Your task to perform on an android device: turn off notifications settings in the gmail app Image 0: 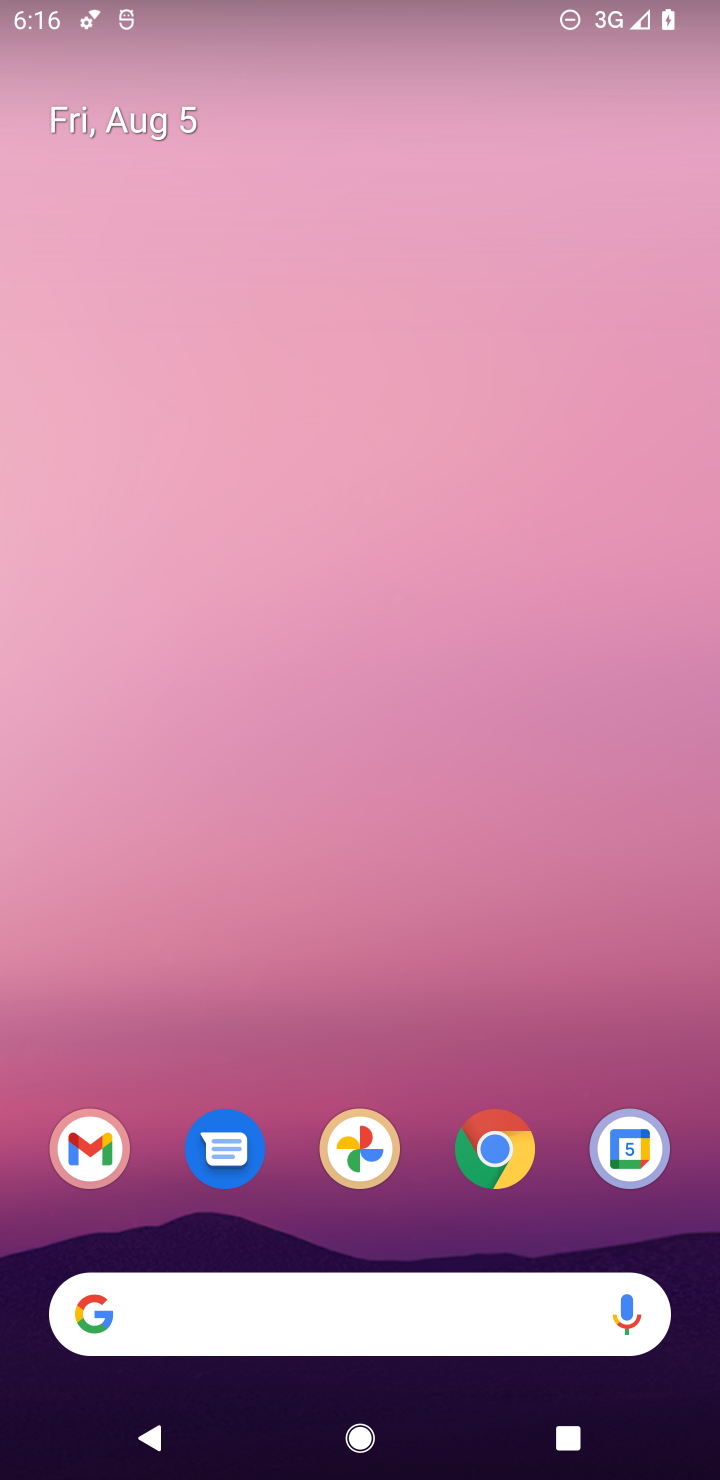
Step 0: click (76, 1154)
Your task to perform on an android device: turn off notifications settings in the gmail app Image 1: 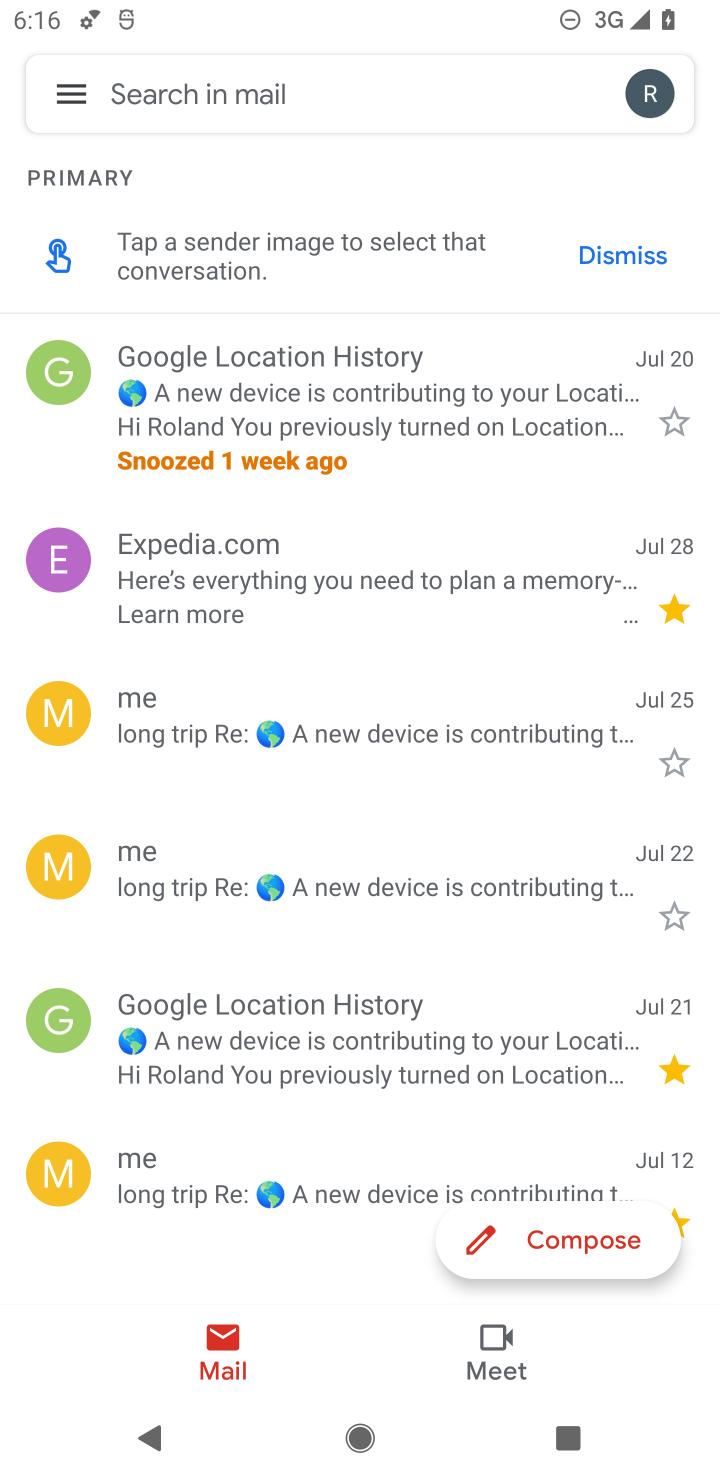
Step 1: click (68, 92)
Your task to perform on an android device: turn off notifications settings in the gmail app Image 2: 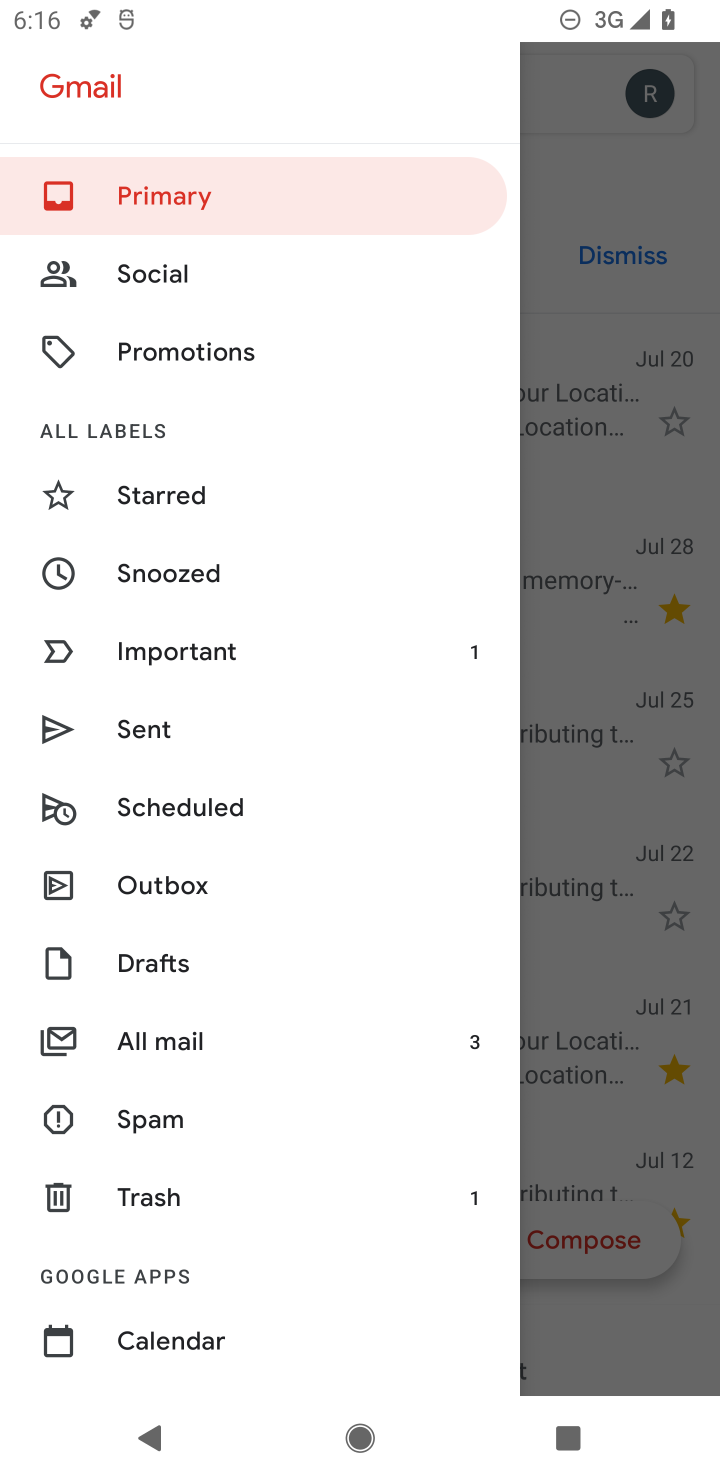
Step 2: drag from (292, 1081) to (289, 702)
Your task to perform on an android device: turn off notifications settings in the gmail app Image 3: 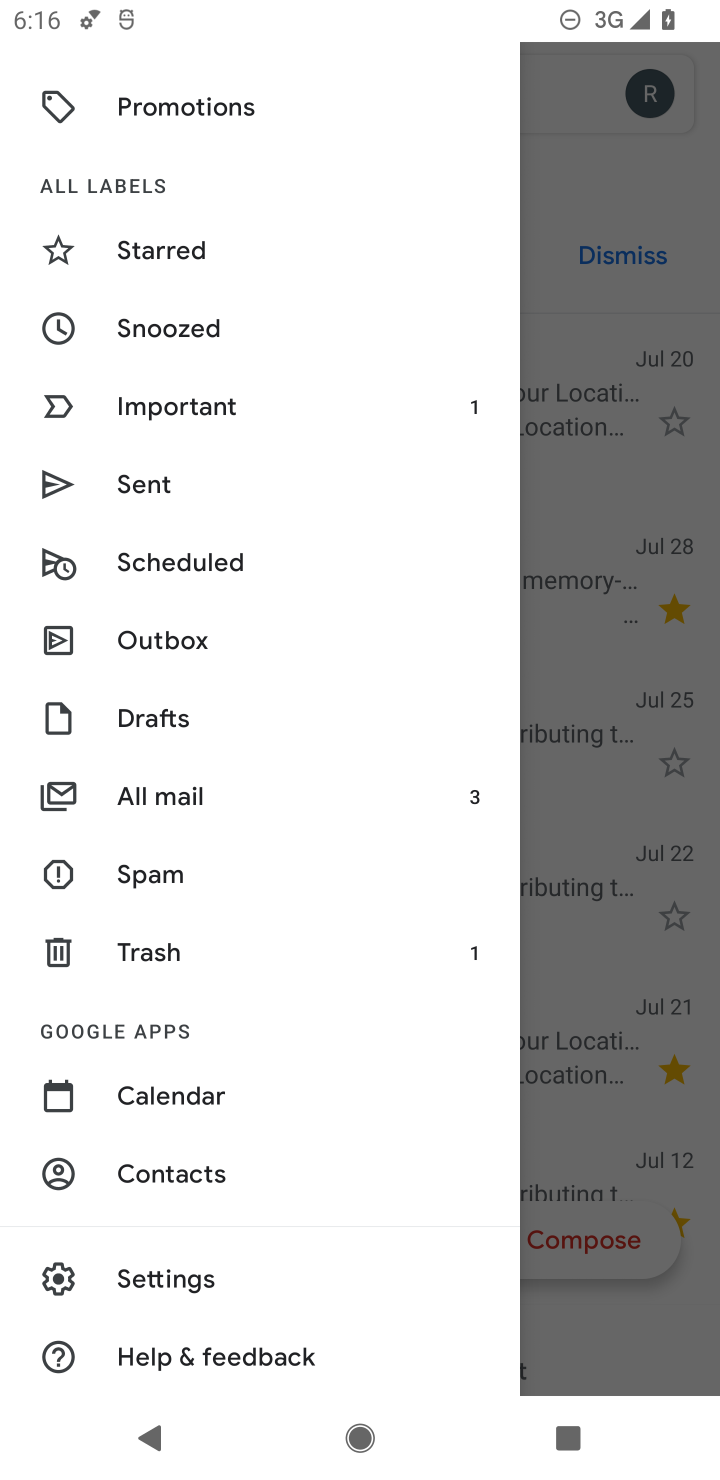
Step 3: click (154, 1275)
Your task to perform on an android device: turn off notifications settings in the gmail app Image 4: 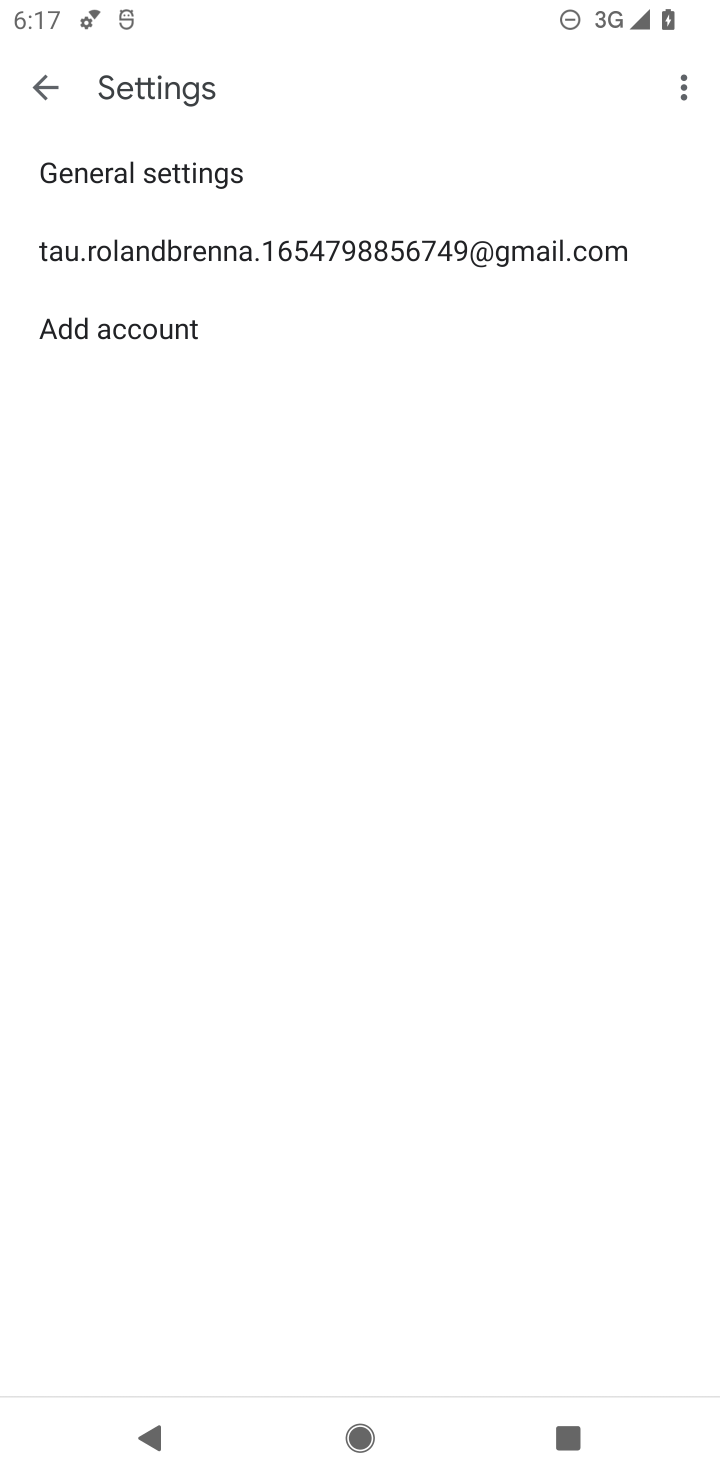
Step 4: click (144, 167)
Your task to perform on an android device: turn off notifications settings in the gmail app Image 5: 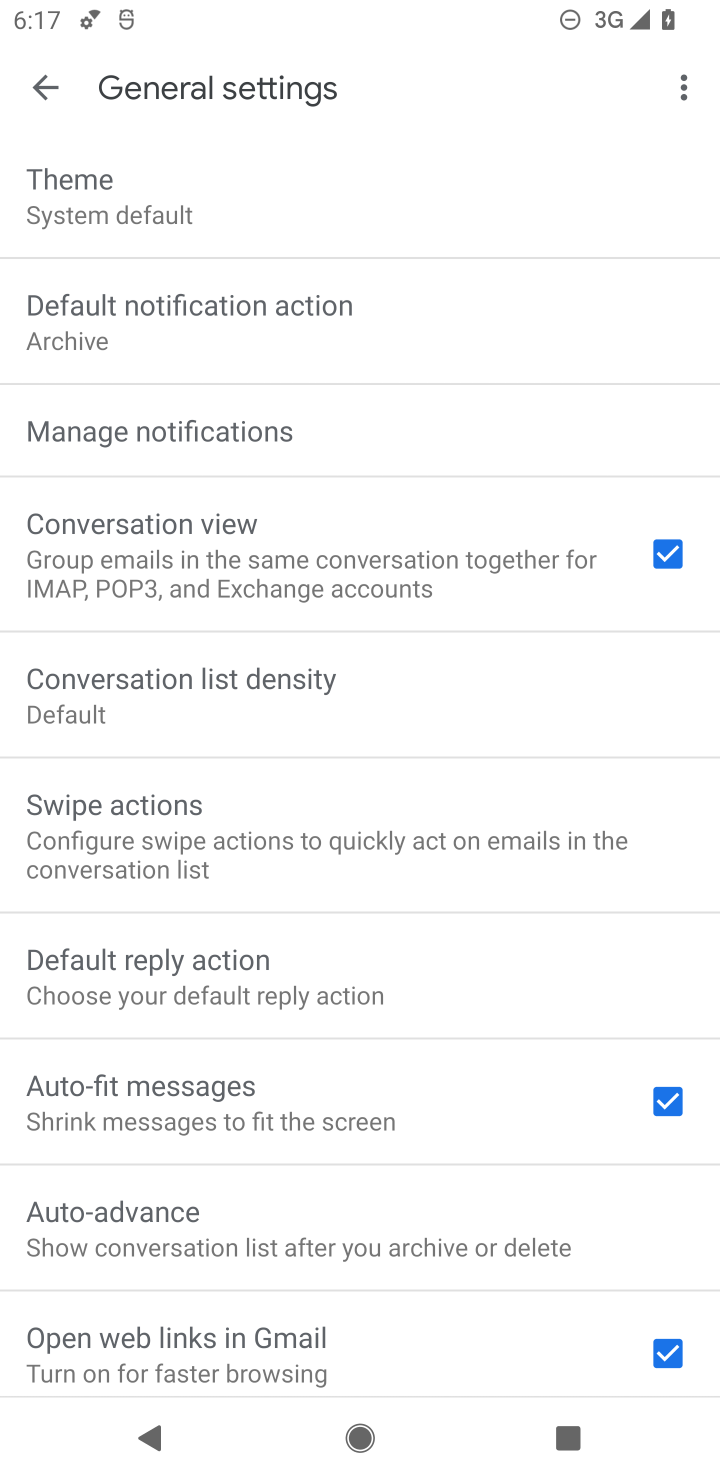
Step 5: click (112, 419)
Your task to perform on an android device: turn off notifications settings in the gmail app Image 6: 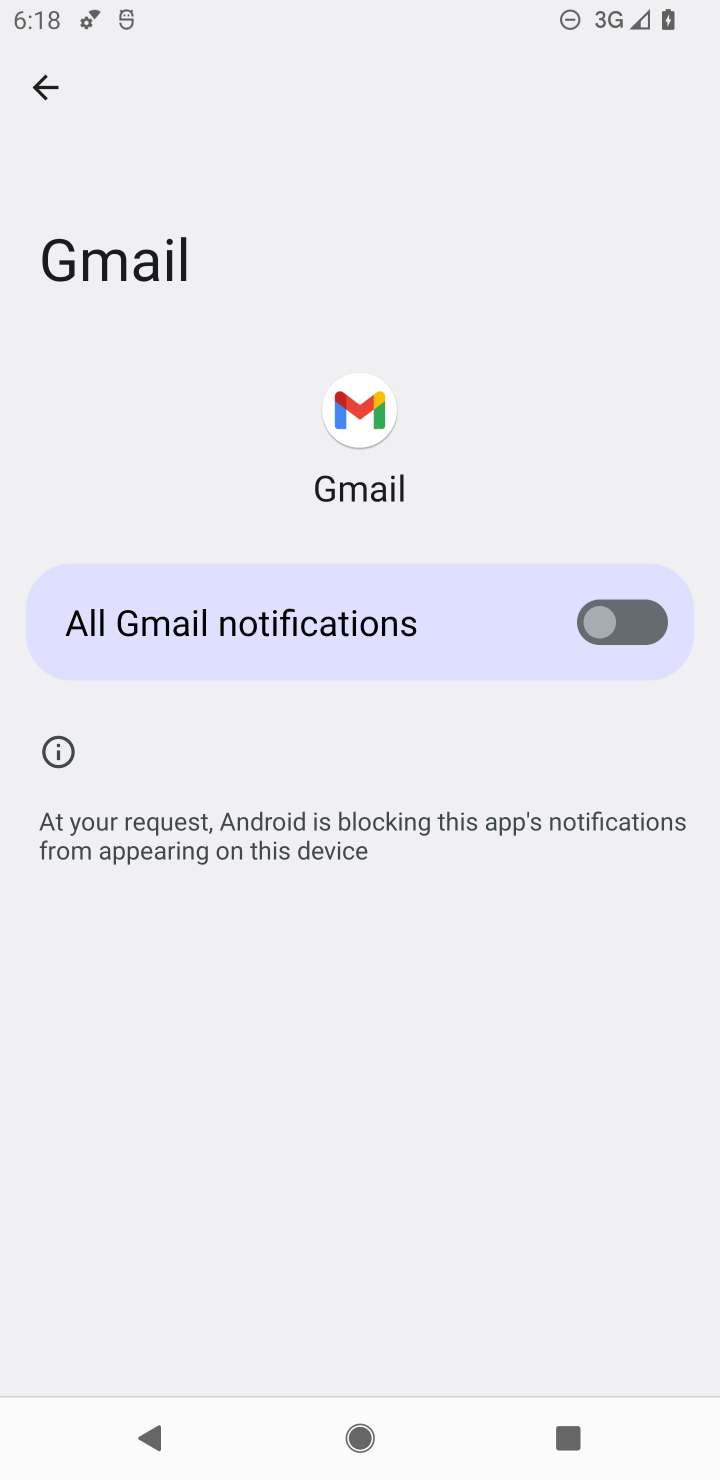
Step 6: task complete